Your task to perform on an android device: Open Google Maps Image 0: 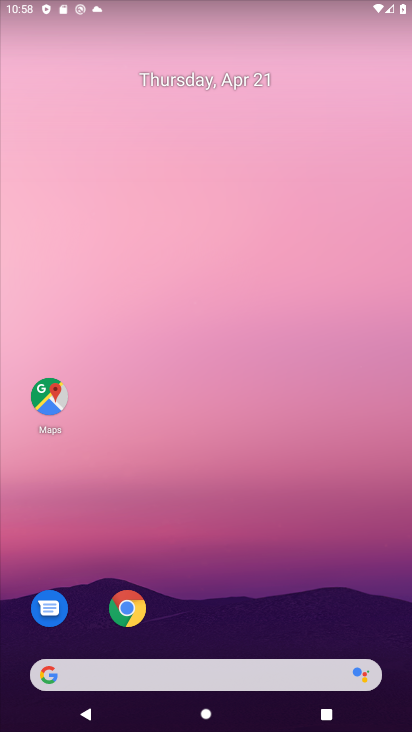
Step 0: click (50, 398)
Your task to perform on an android device: Open Google Maps Image 1: 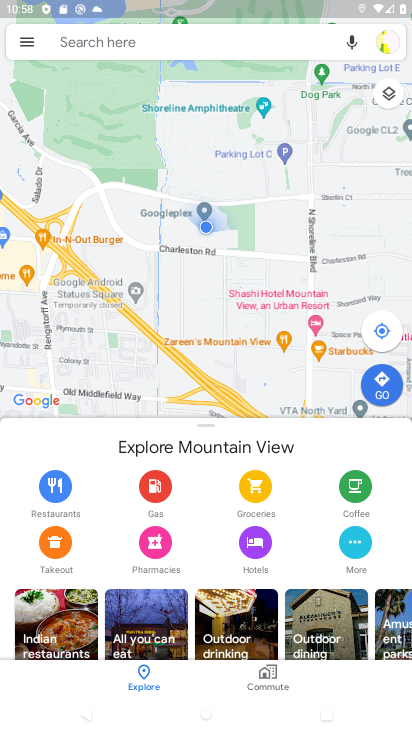
Step 1: task complete